Your task to perform on an android device: Go to Amazon Image 0: 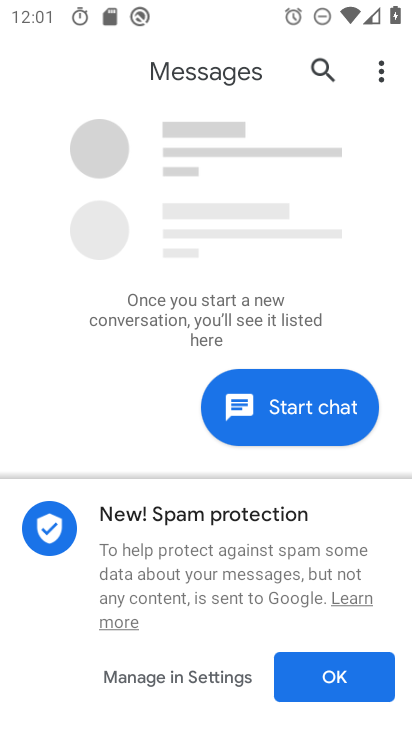
Step 0: press home button
Your task to perform on an android device: Go to Amazon Image 1: 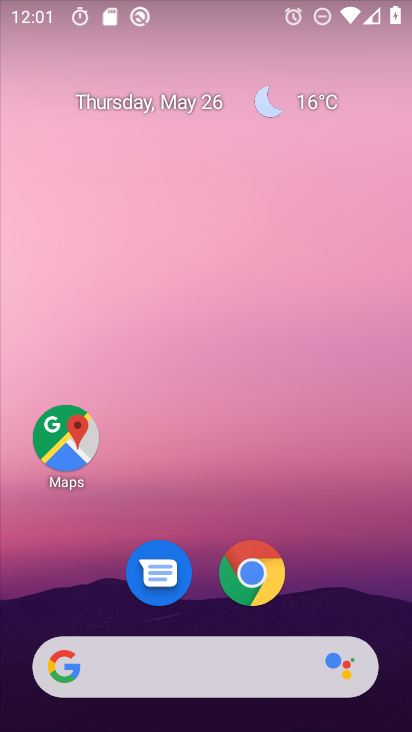
Step 1: click (263, 578)
Your task to perform on an android device: Go to Amazon Image 2: 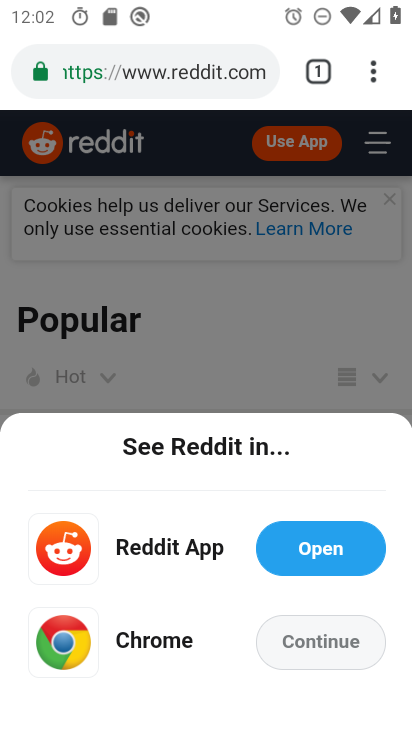
Step 2: click (149, 72)
Your task to perform on an android device: Go to Amazon Image 3: 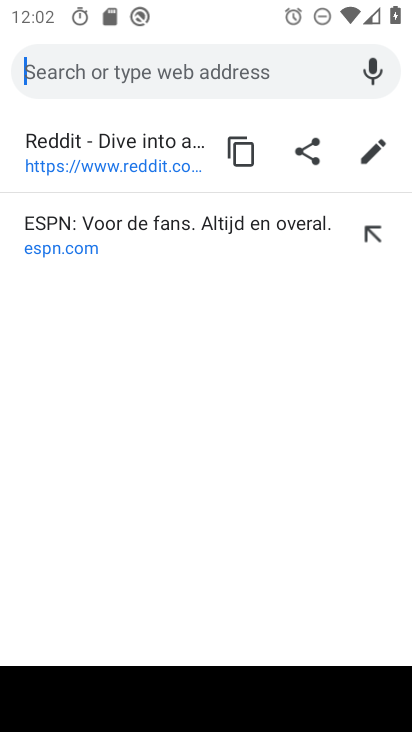
Step 3: type "amazon"
Your task to perform on an android device: Go to Amazon Image 4: 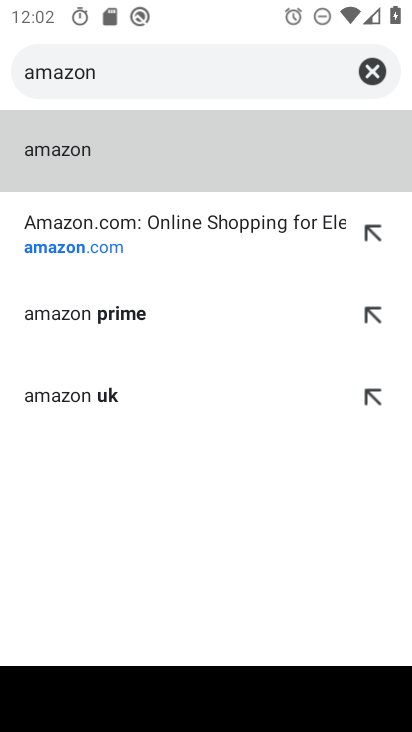
Step 4: click (62, 155)
Your task to perform on an android device: Go to Amazon Image 5: 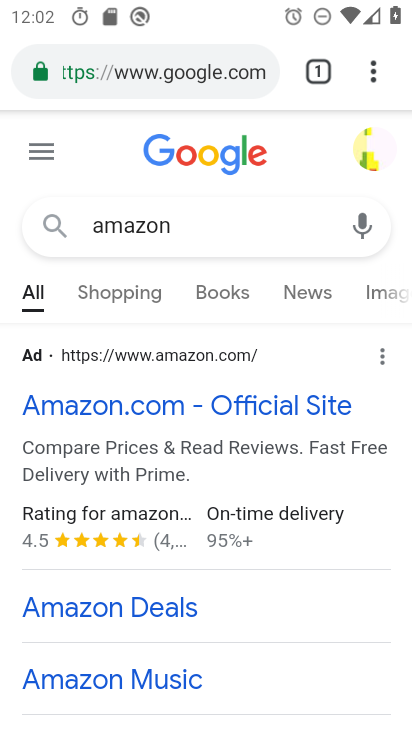
Step 5: click (87, 402)
Your task to perform on an android device: Go to Amazon Image 6: 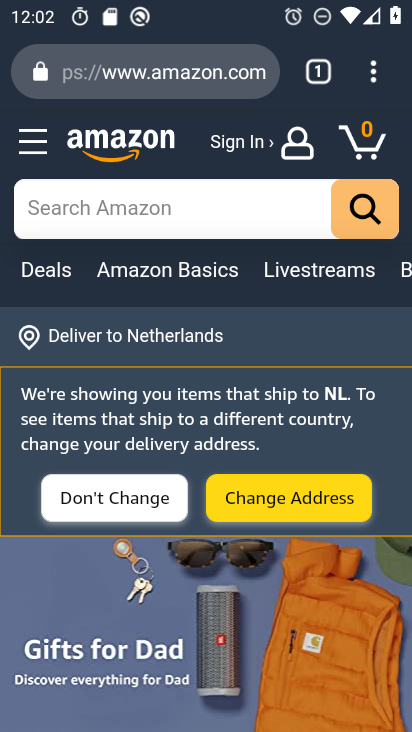
Step 6: task complete